Your task to perform on an android device: delete browsing data in the chrome app Image 0: 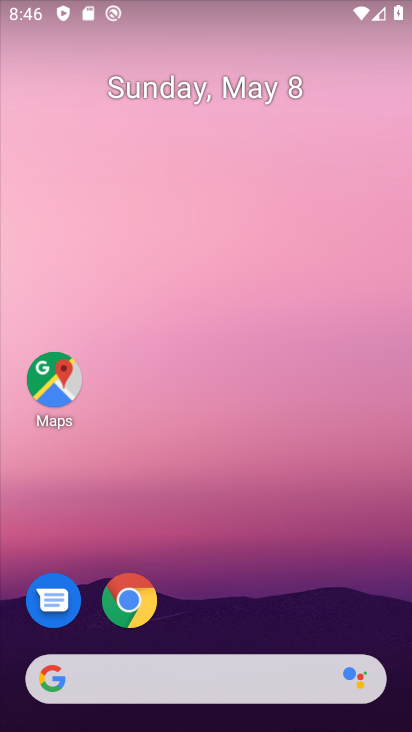
Step 0: click (145, 612)
Your task to perform on an android device: delete browsing data in the chrome app Image 1: 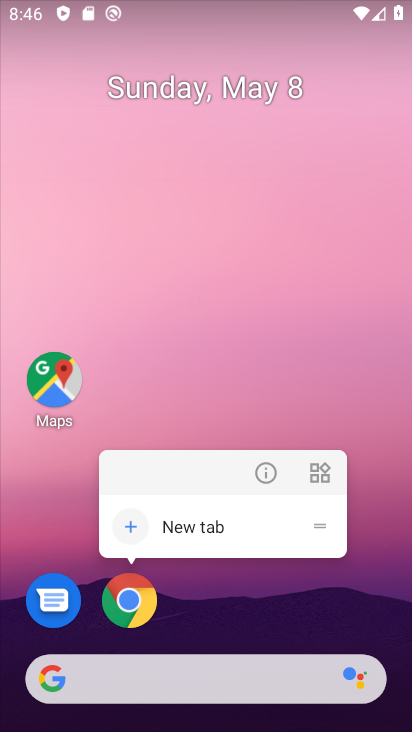
Step 1: click (139, 601)
Your task to perform on an android device: delete browsing data in the chrome app Image 2: 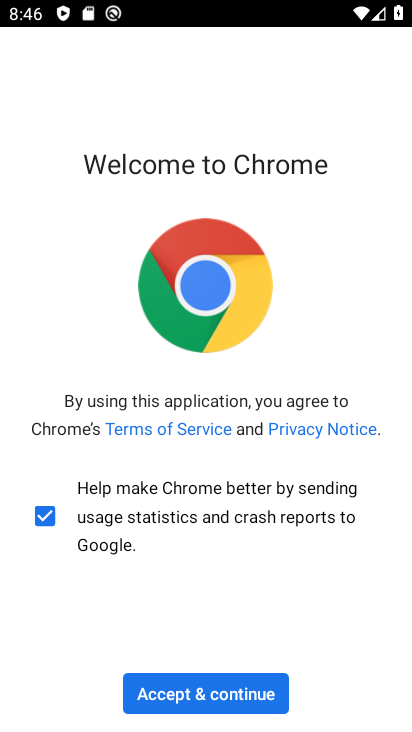
Step 2: click (184, 683)
Your task to perform on an android device: delete browsing data in the chrome app Image 3: 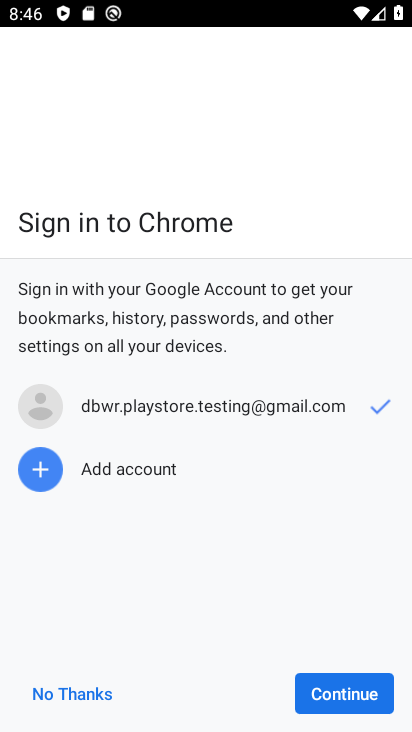
Step 3: click (371, 703)
Your task to perform on an android device: delete browsing data in the chrome app Image 4: 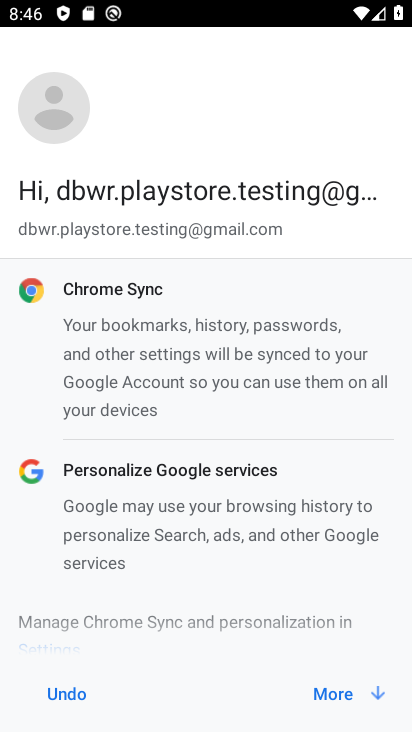
Step 4: click (340, 701)
Your task to perform on an android device: delete browsing data in the chrome app Image 5: 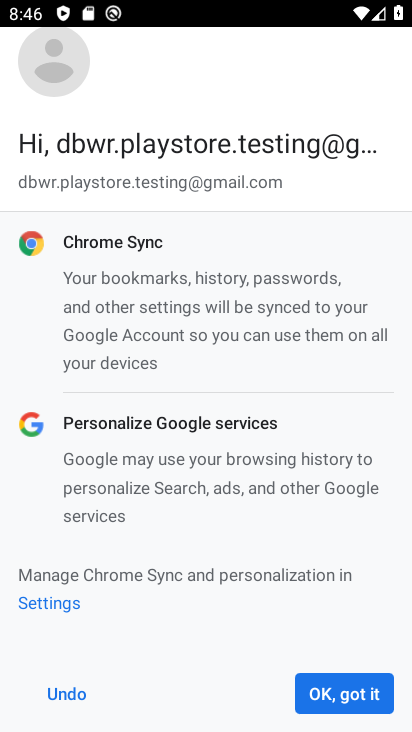
Step 5: click (340, 701)
Your task to perform on an android device: delete browsing data in the chrome app Image 6: 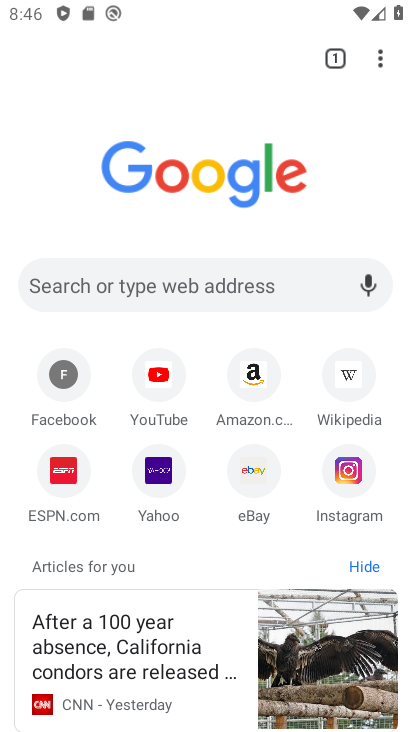
Step 6: task complete